Your task to perform on an android device: Open calendar and show me the first week of next month Image 0: 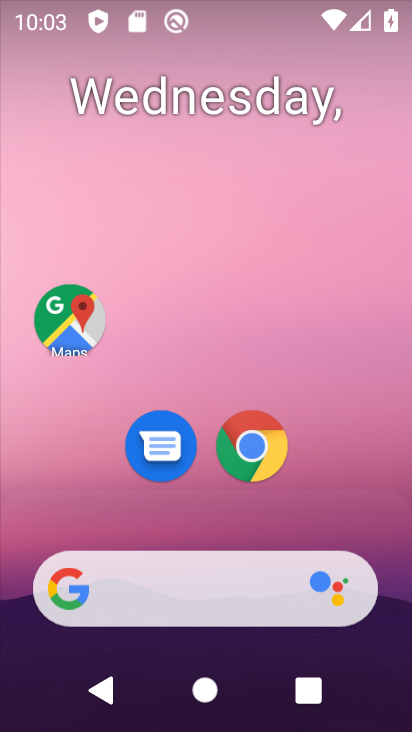
Step 0: drag from (310, 469) to (320, 62)
Your task to perform on an android device: Open calendar and show me the first week of next month Image 1: 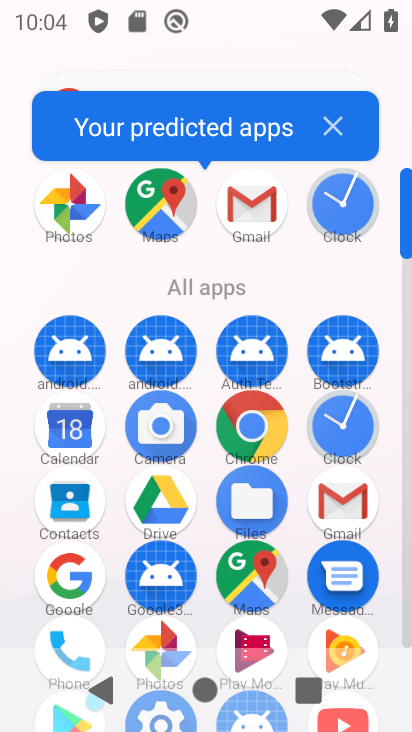
Step 1: click (81, 431)
Your task to perform on an android device: Open calendar and show me the first week of next month Image 2: 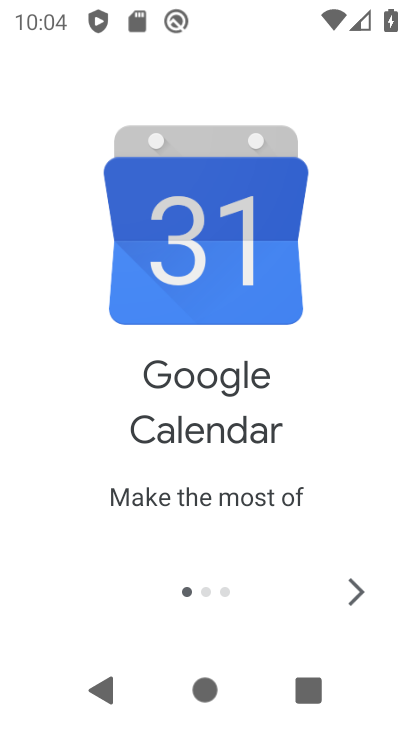
Step 2: click (337, 596)
Your task to perform on an android device: Open calendar and show me the first week of next month Image 3: 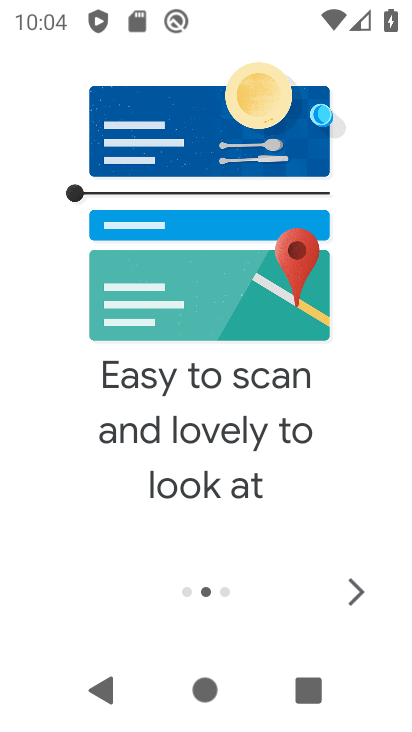
Step 3: click (337, 596)
Your task to perform on an android device: Open calendar and show me the first week of next month Image 4: 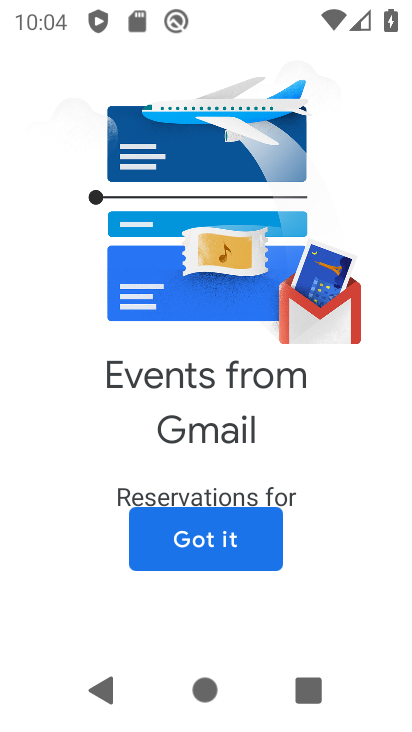
Step 4: click (176, 554)
Your task to perform on an android device: Open calendar and show me the first week of next month Image 5: 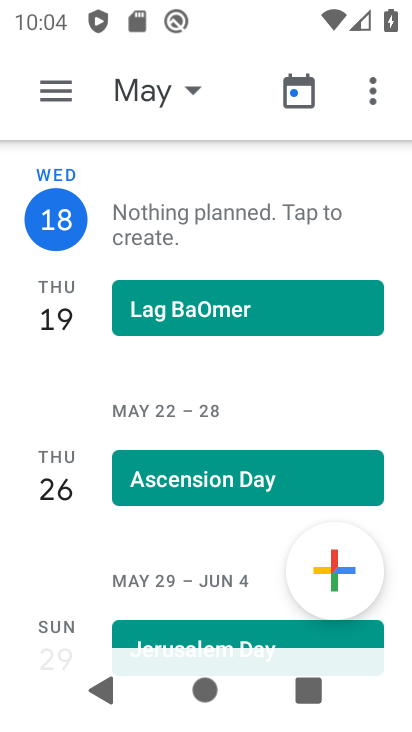
Step 5: click (144, 97)
Your task to perform on an android device: Open calendar and show me the first week of next month Image 6: 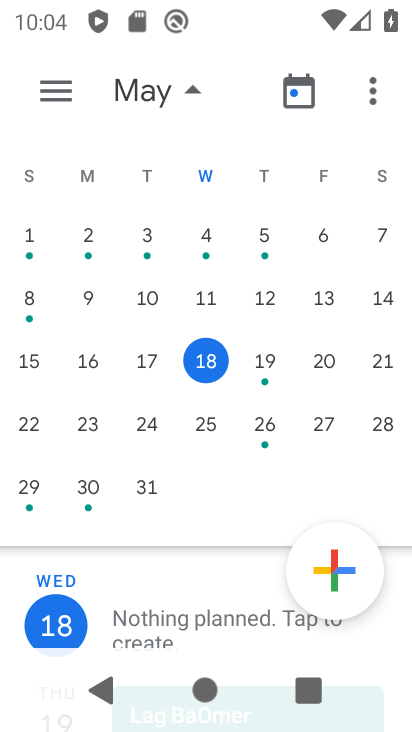
Step 6: drag from (319, 348) to (1, 340)
Your task to perform on an android device: Open calendar and show me the first week of next month Image 7: 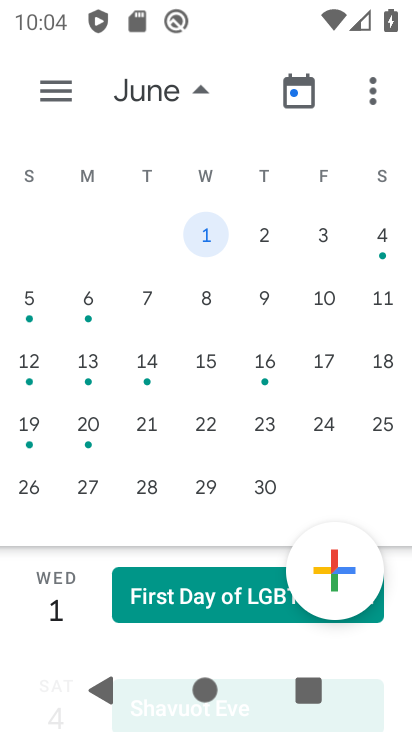
Step 7: click (198, 234)
Your task to perform on an android device: Open calendar and show me the first week of next month Image 8: 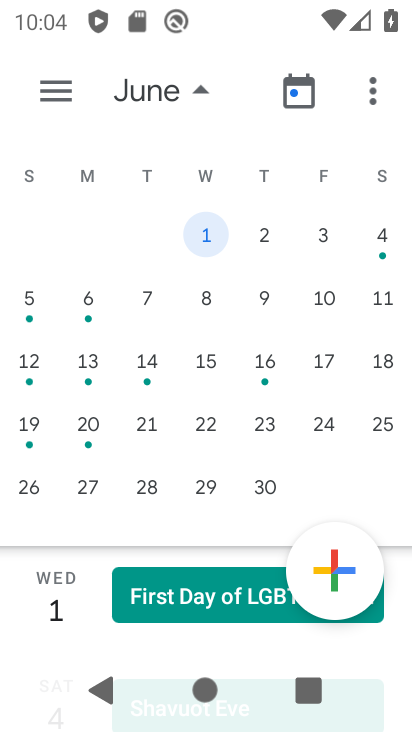
Step 8: click (259, 234)
Your task to perform on an android device: Open calendar and show me the first week of next month Image 9: 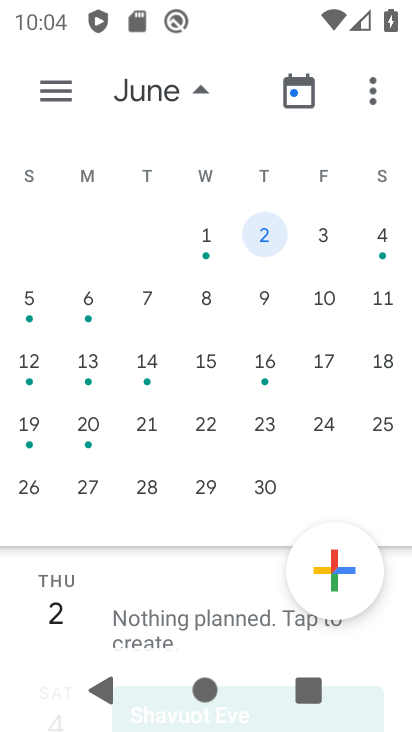
Step 9: click (331, 244)
Your task to perform on an android device: Open calendar and show me the first week of next month Image 10: 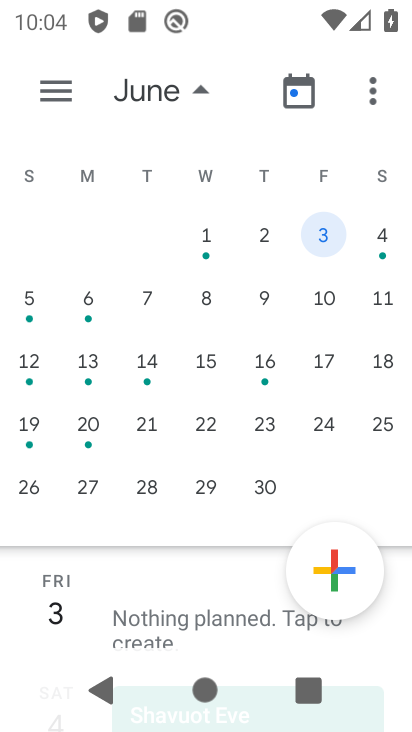
Step 10: click (383, 243)
Your task to perform on an android device: Open calendar and show me the first week of next month Image 11: 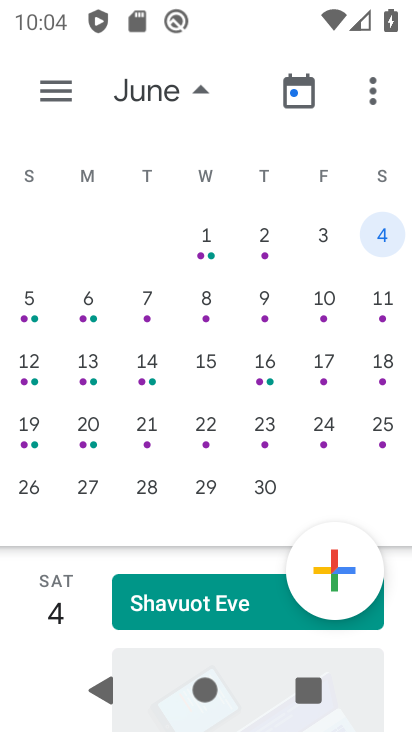
Step 11: task complete